Your task to perform on an android device: turn on airplane mode Image 0: 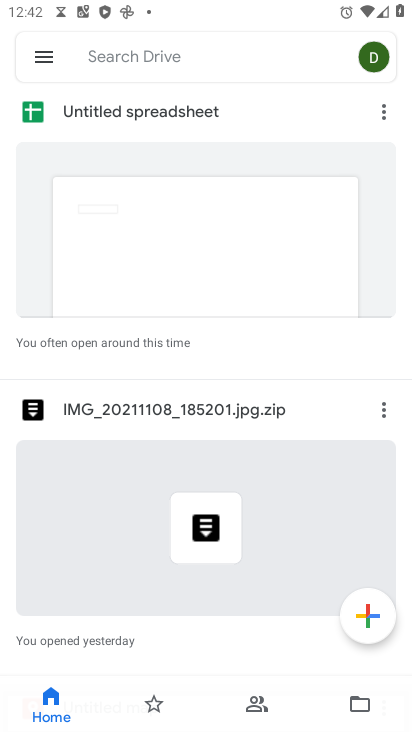
Step 0: press home button
Your task to perform on an android device: turn on airplane mode Image 1: 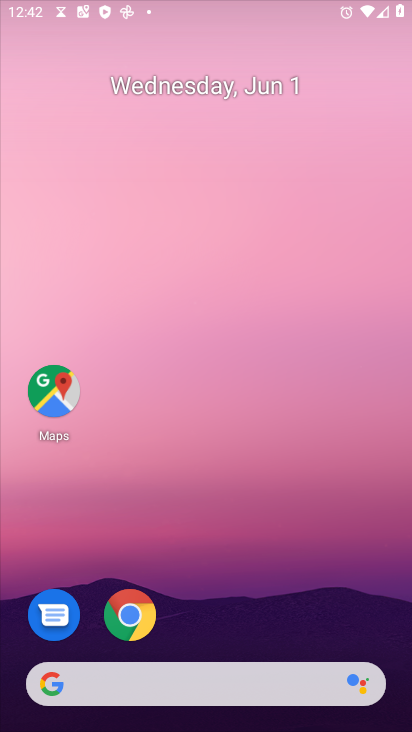
Step 1: drag from (237, 502) to (304, 8)
Your task to perform on an android device: turn on airplane mode Image 2: 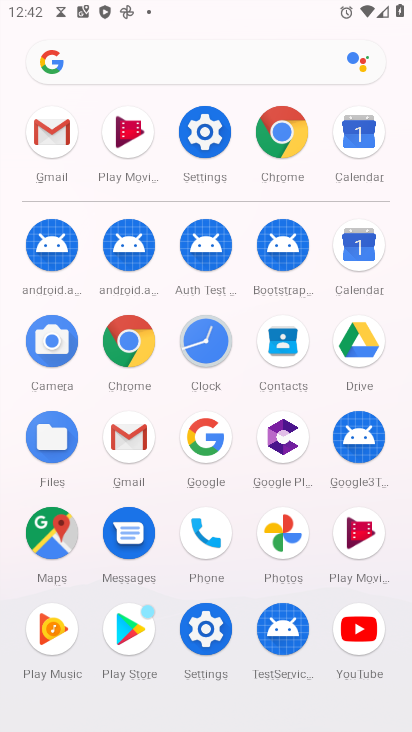
Step 2: click (204, 134)
Your task to perform on an android device: turn on airplane mode Image 3: 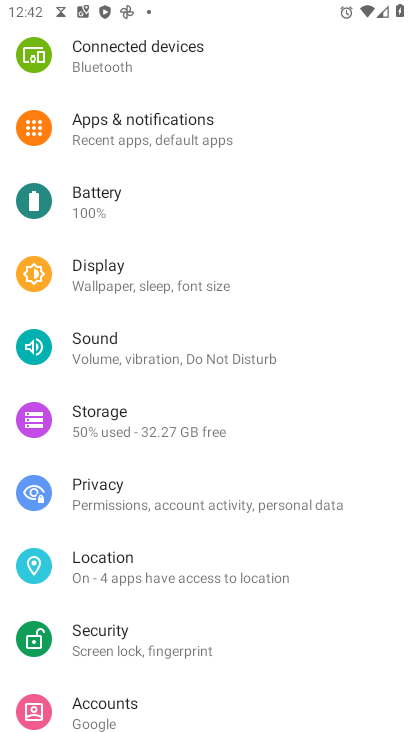
Step 3: drag from (204, 133) to (261, 540)
Your task to perform on an android device: turn on airplane mode Image 4: 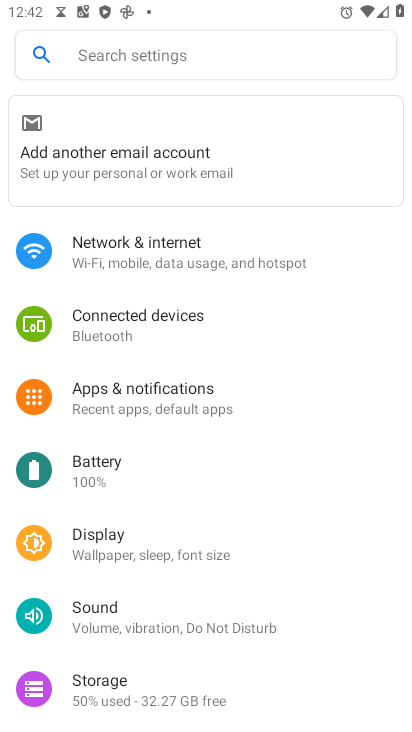
Step 4: click (140, 264)
Your task to perform on an android device: turn on airplane mode Image 5: 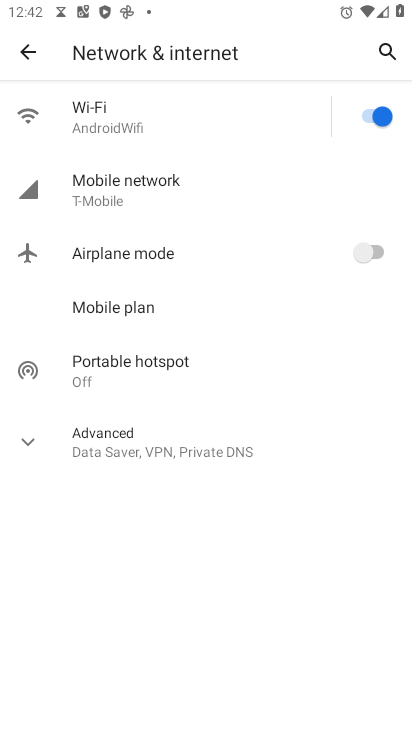
Step 5: click (115, 255)
Your task to perform on an android device: turn on airplane mode Image 6: 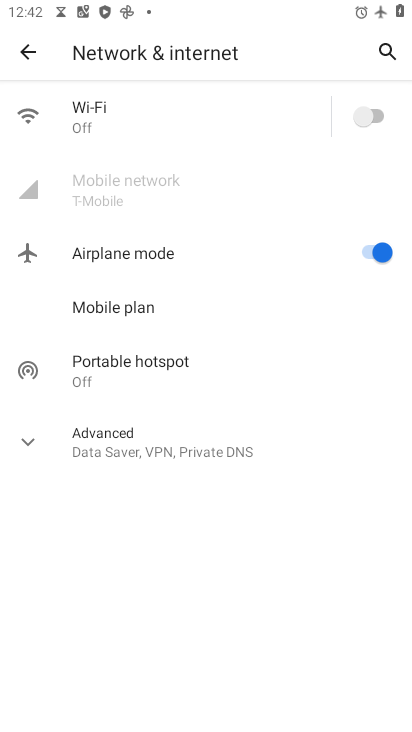
Step 6: task complete